Your task to perform on an android device: read, delete, or share a saved page in the chrome app Image 0: 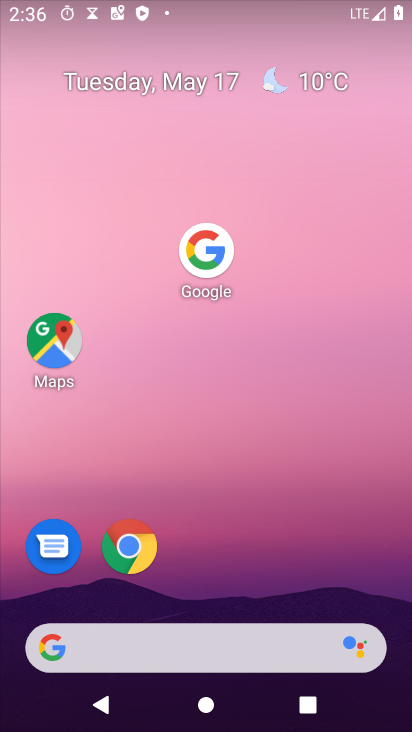
Step 0: press home button
Your task to perform on an android device: read, delete, or share a saved page in the chrome app Image 1: 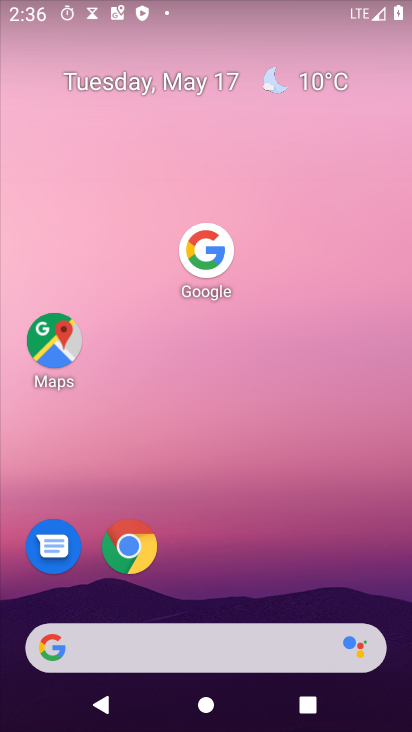
Step 1: click (135, 551)
Your task to perform on an android device: read, delete, or share a saved page in the chrome app Image 2: 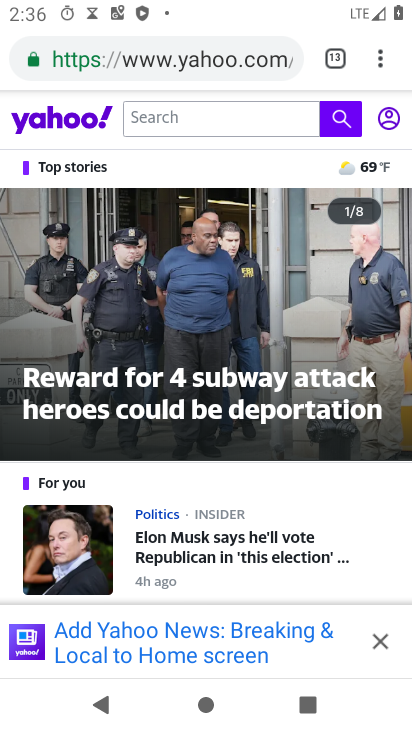
Step 2: drag from (382, 61) to (282, 584)
Your task to perform on an android device: read, delete, or share a saved page in the chrome app Image 3: 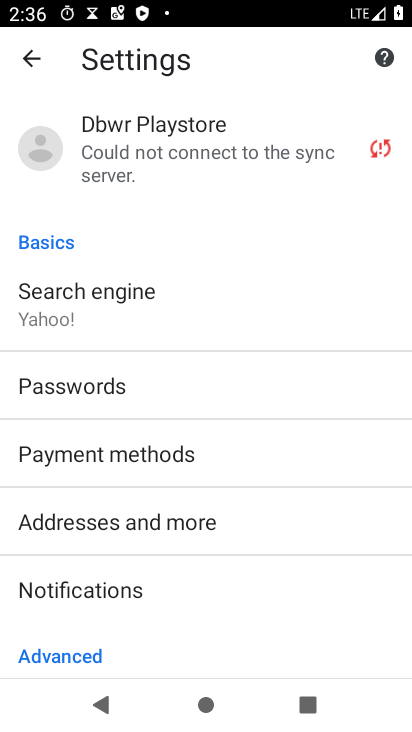
Step 3: click (33, 58)
Your task to perform on an android device: read, delete, or share a saved page in the chrome app Image 4: 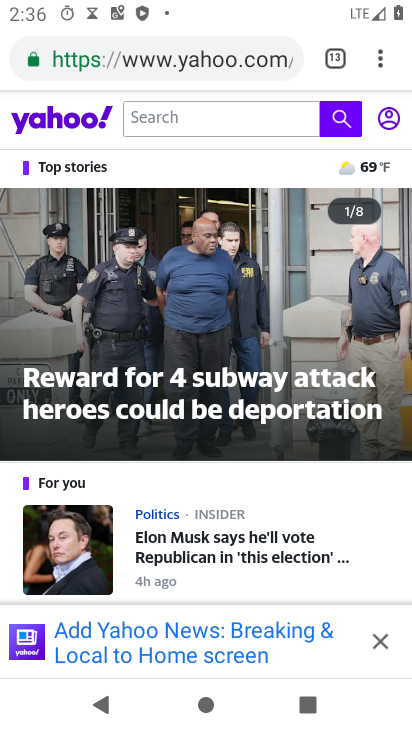
Step 4: drag from (385, 66) to (214, 379)
Your task to perform on an android device: read, delete, or share a saved page in the chrome app Image 5: 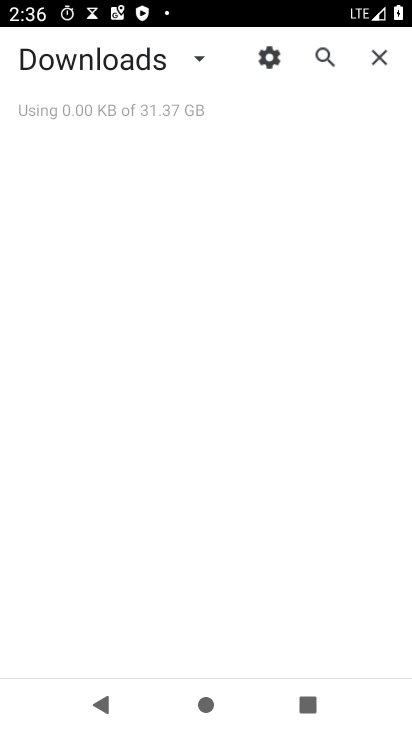
Step 5: click (175, 60)
Your task to perform on an android device: read, delete, or share a saved page in the chrome app Image 6: 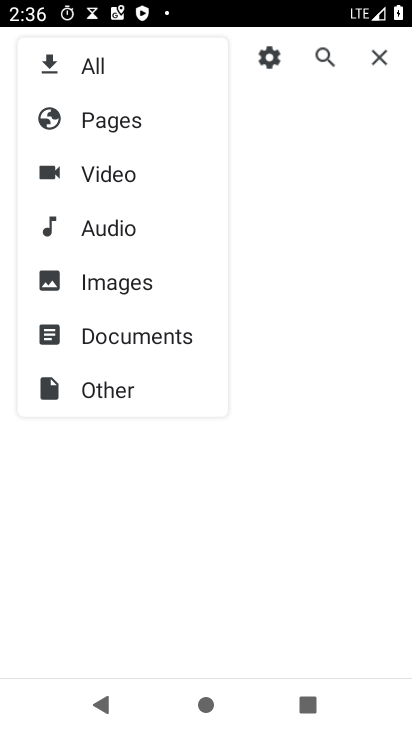
Step 6: click (107, 127)
Your task to perform on an android device: read, delete, or share a saved page in the chrome app Image 7: 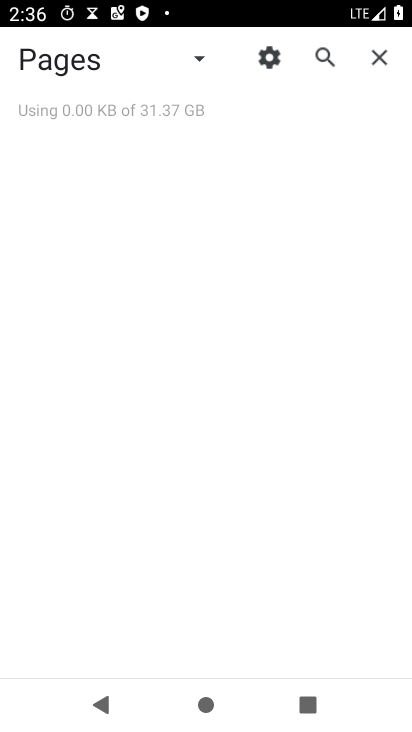
Step 7: task complete